Your task to perform on an android device: See recent photos Image 0: 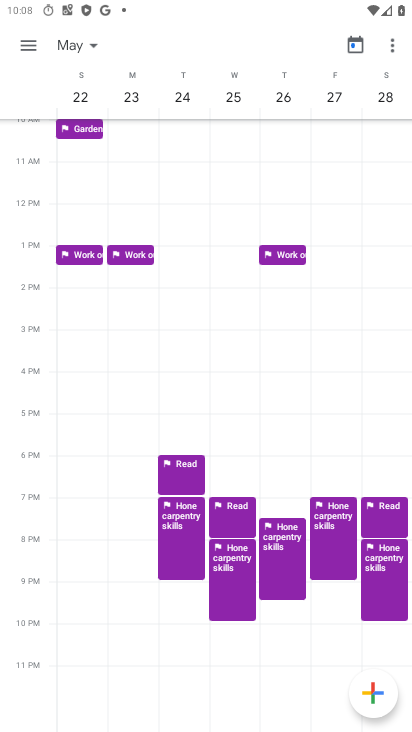
Step 0: press home button
Your task to perform on an android device: See recent photos Image 1: 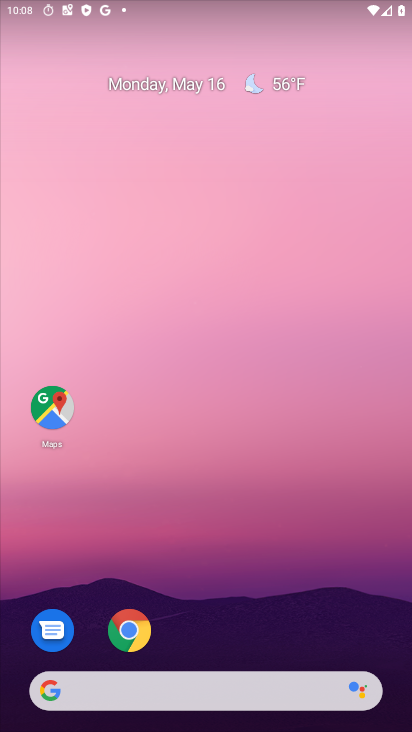
Step 1: drag from (183, 627) to (239, 280)
Your task to perform on an android device: See recent photos Image 2: 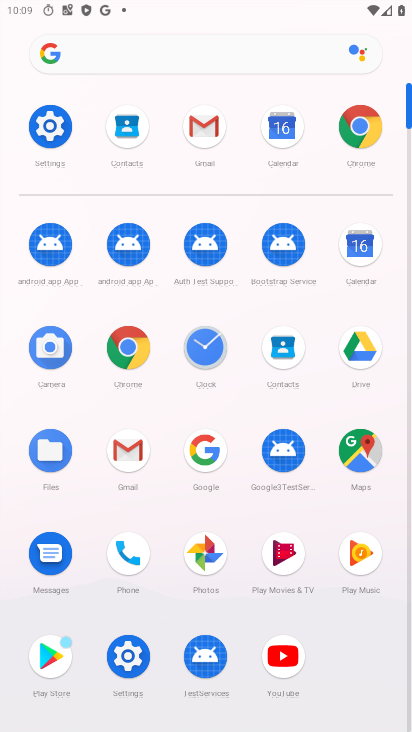
Step 2: click (216, 567)
Your task to perform on an android device: See recent photos Image 3: 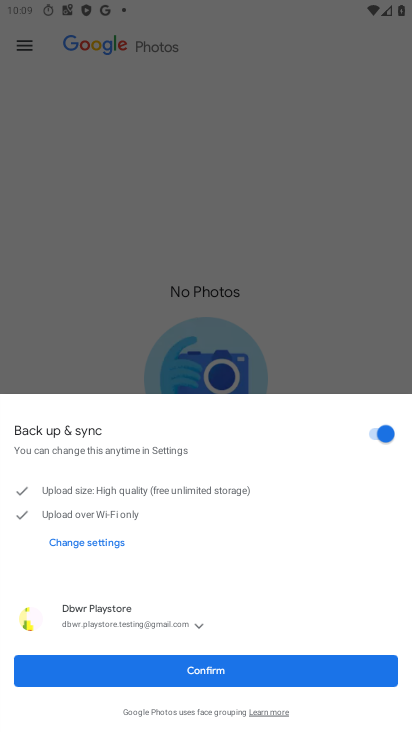
Step 3: click (189, 676)
Your task to perform on an android device: See recent photos Image 4: 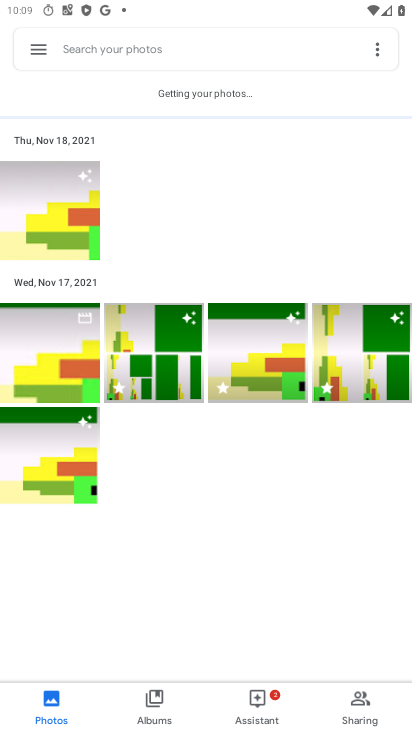
Step 4: click (33, 362)
Your task to perform on an android device: See recent photos Image 5: 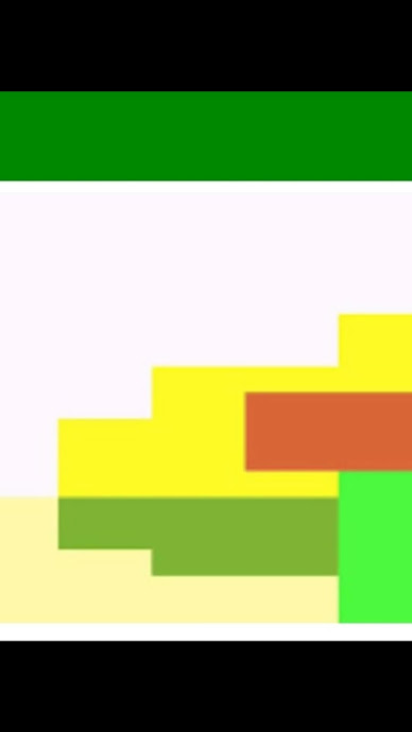
Step 5: task complete